Your task to perform on an android device: install app "Clock" Image 0: 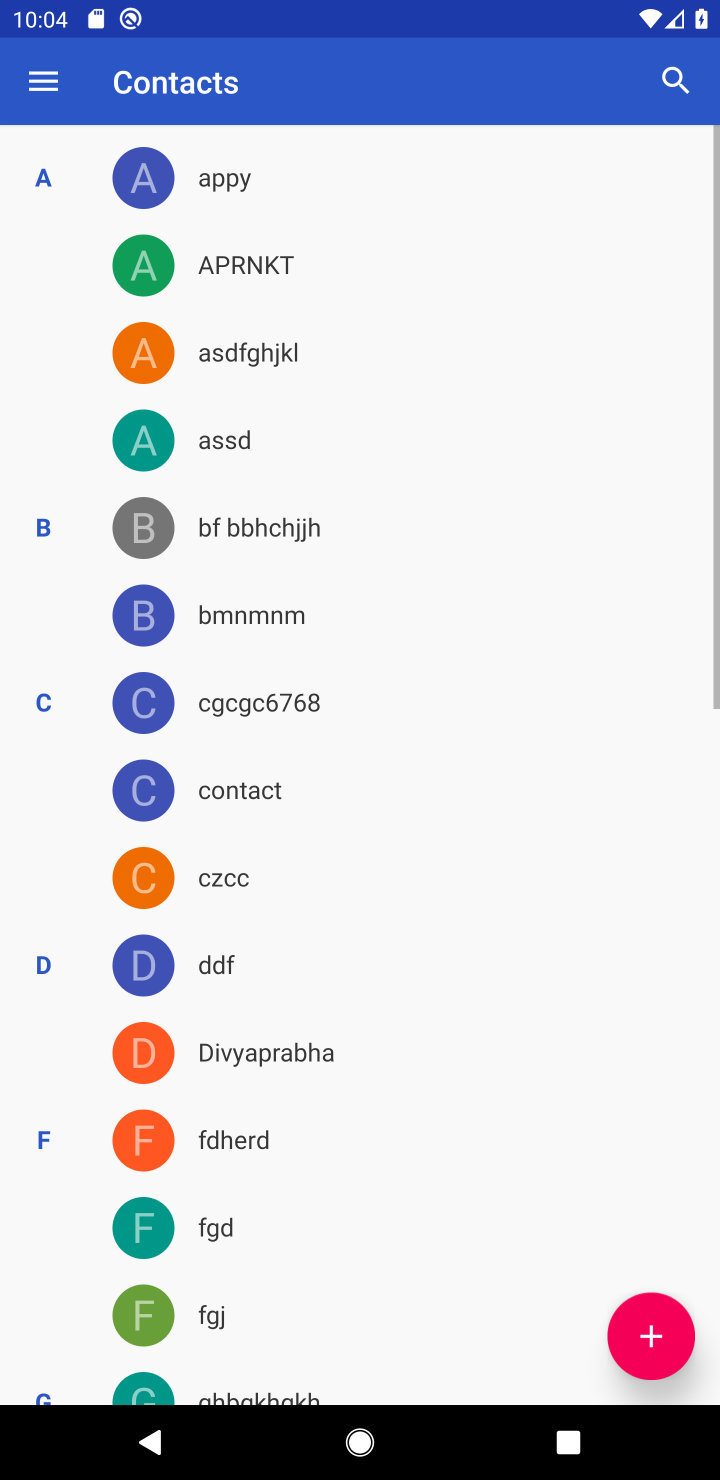
Step 0: press home button
Your task to perform on an android device: install app "Clock" Image 1: 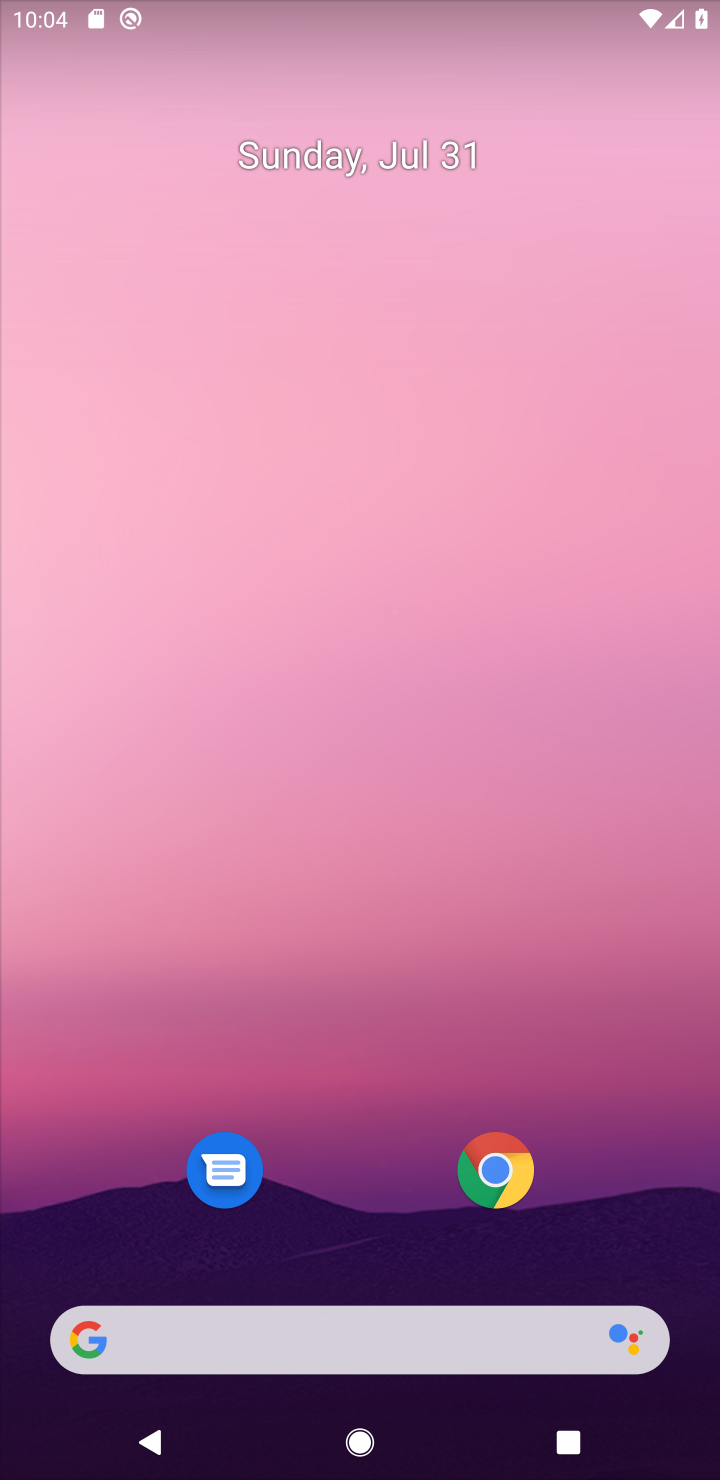
Step 1: drag from (640, 1193) to (389, 4)
Your task to perform on an android device: install app "Clock" Image 2: 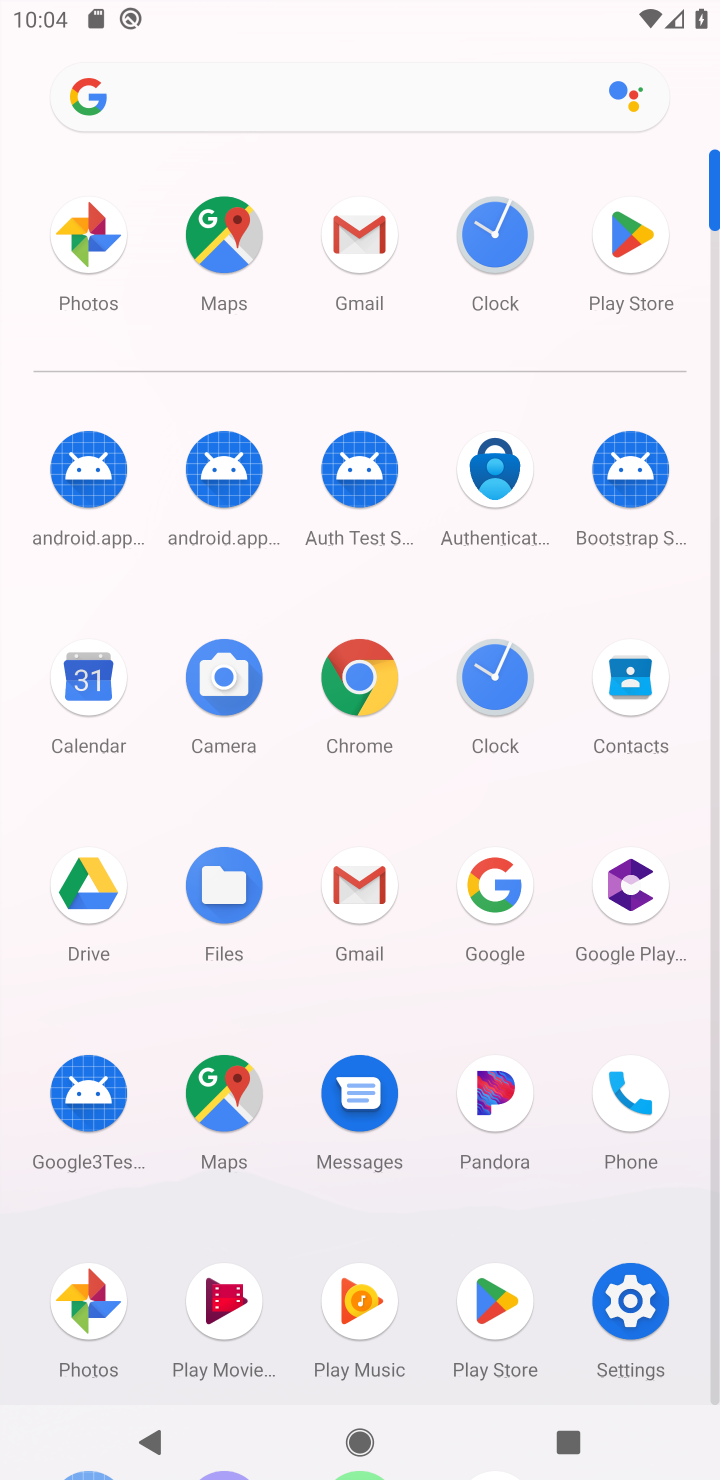
Step 2: click (624, 294)
Your task to perform on an android device: install app "Clock" Image 3: 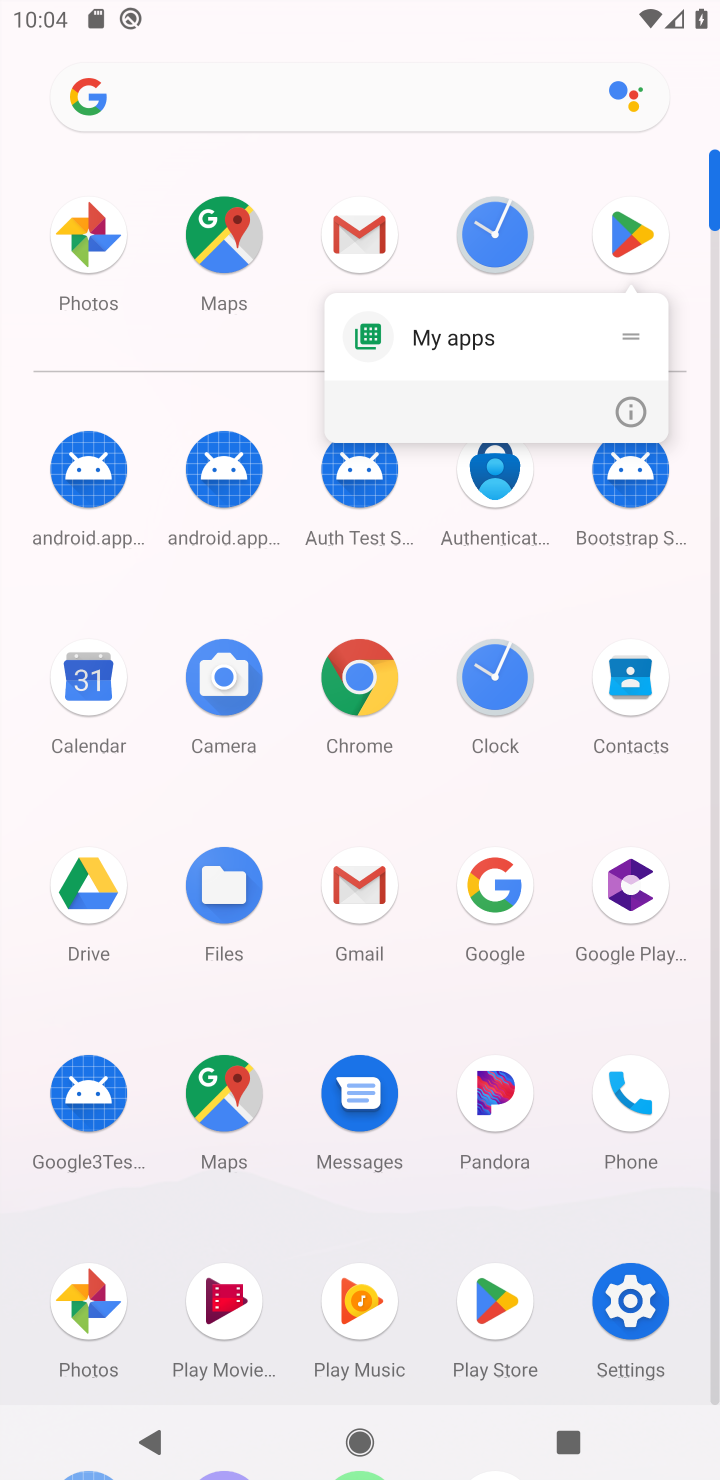
Step 3: click (613, 241)
Your task to perform on an android device: install app "Clock" Image 4: 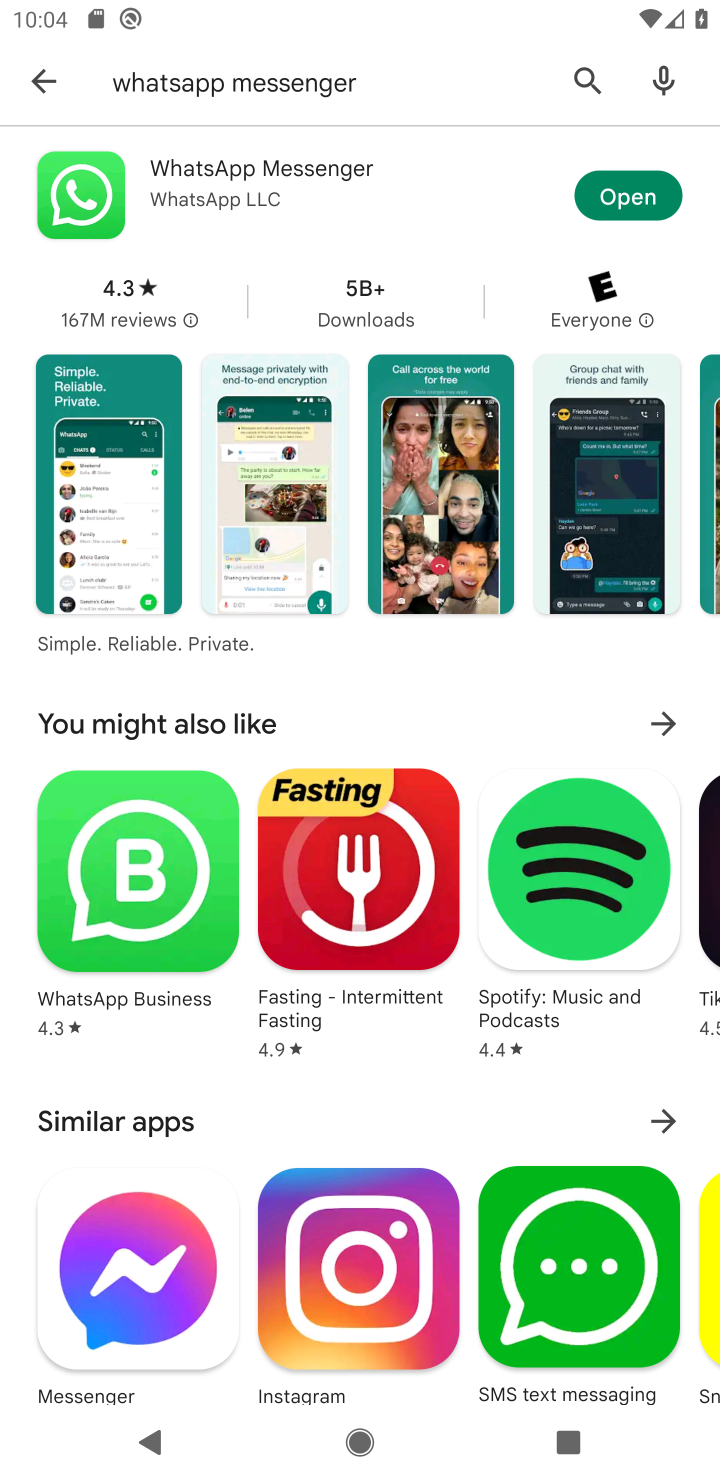
Step 4: press back button
Your task to perform on an android device: install app "Clock" Image 5: 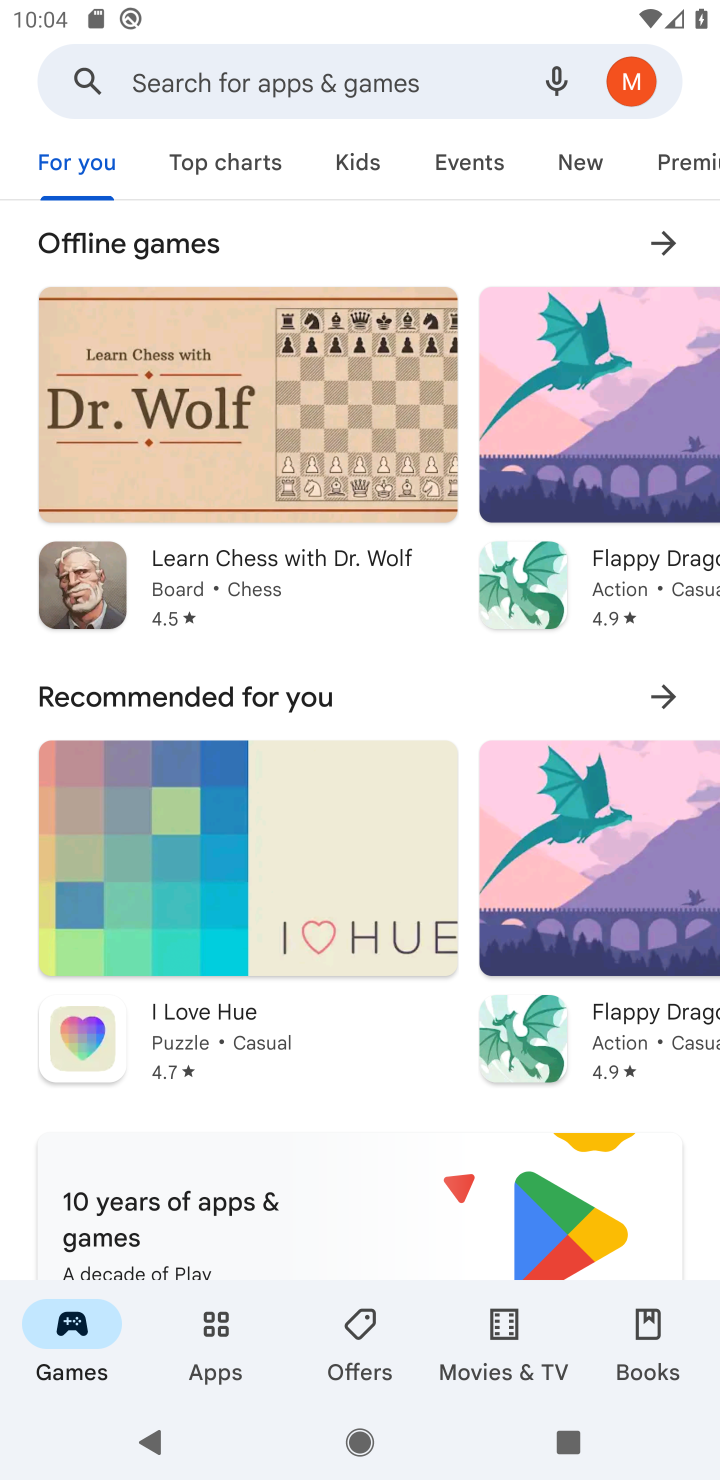
Step 5: click (223, 87)
Your task to perform on an android device: install app "Clock" Image 6: 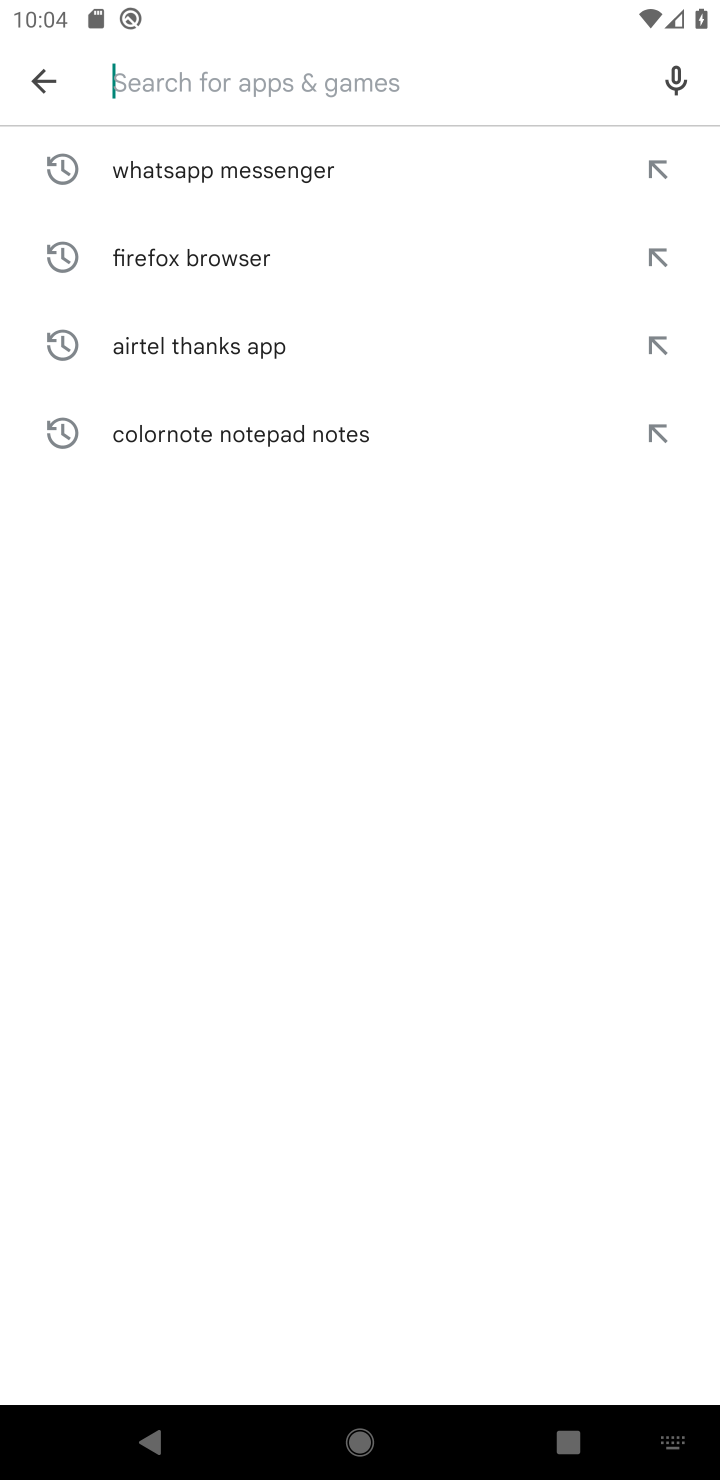
Step 6: type "clock"
Your task to perform on an android device: install app "Clock" Image 7: 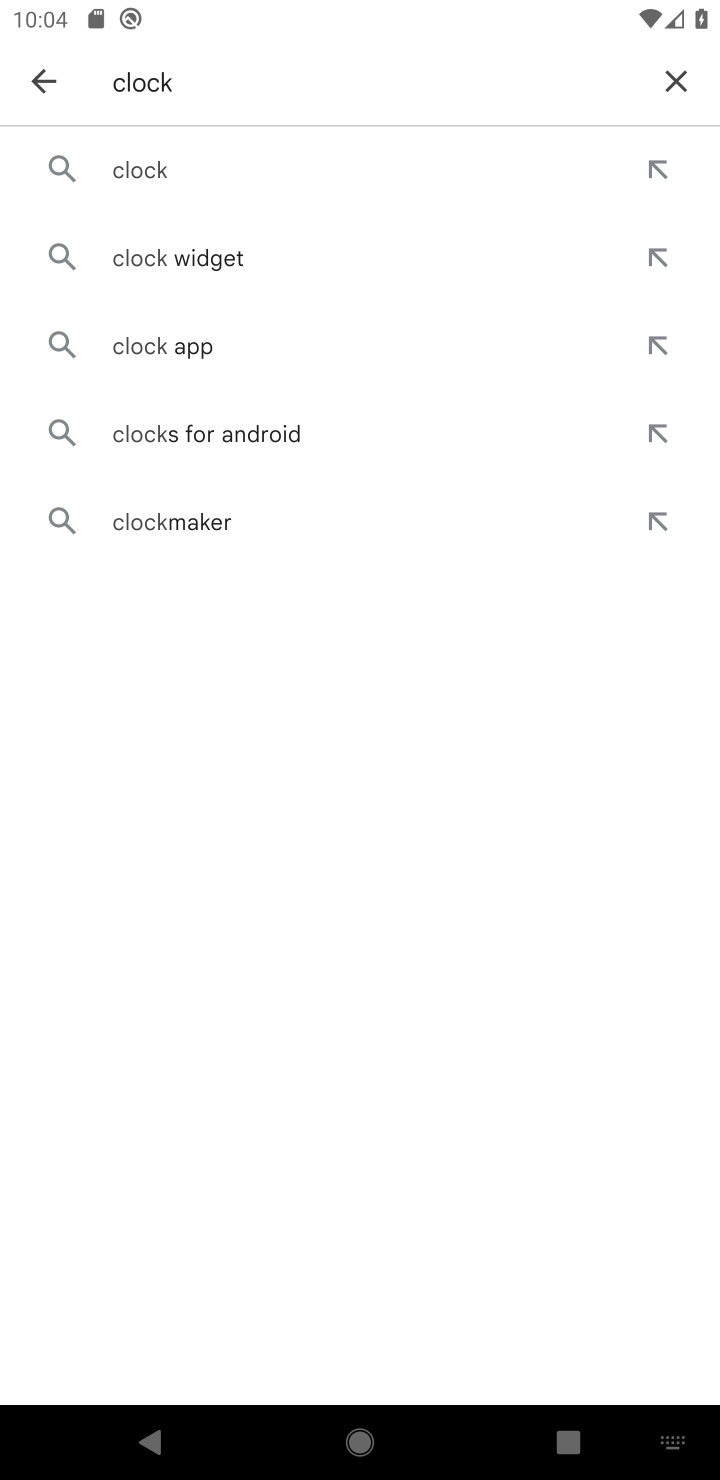
Step 7: click (233, 174)
Your task to perform on an android device: install app "Clock" Image 8: 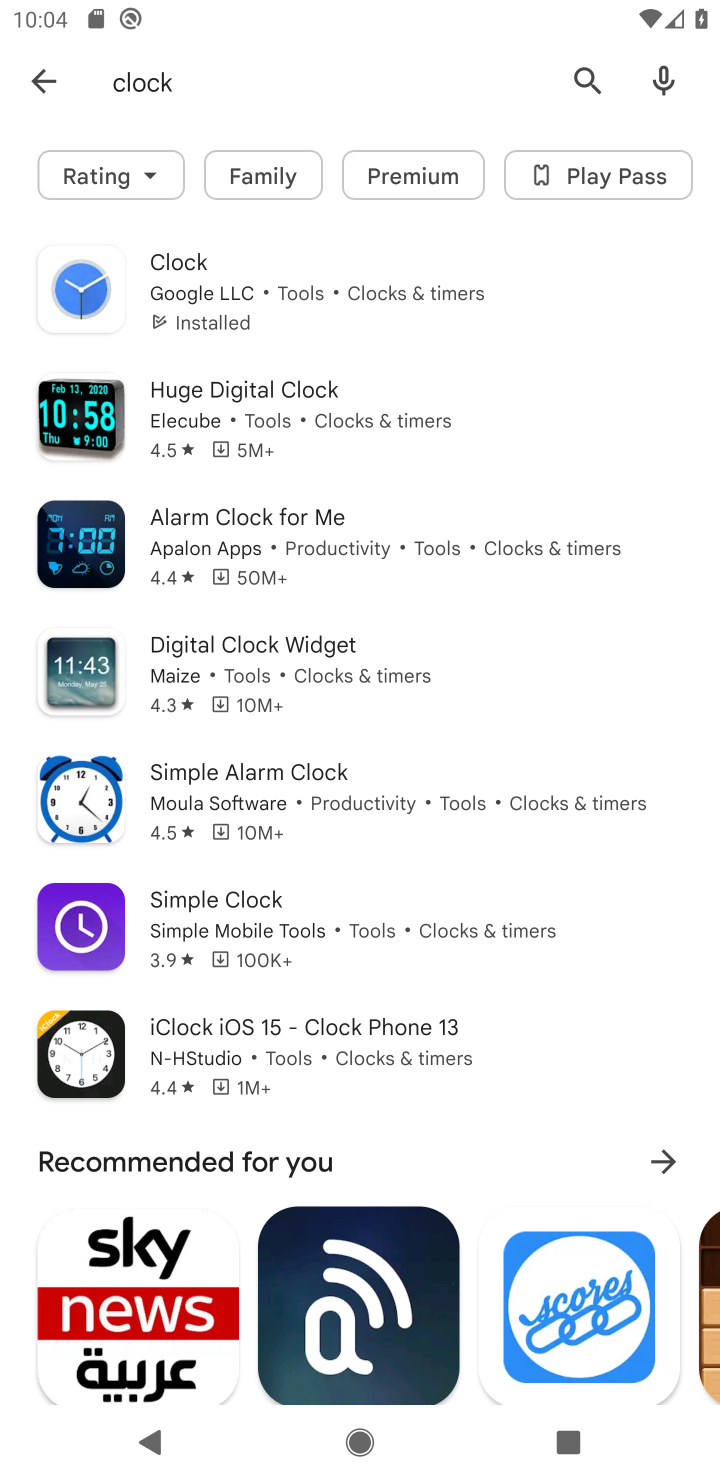
Step 8: click (325, 268)
Your task to perform on an android device: install app "Clock" Image 9: 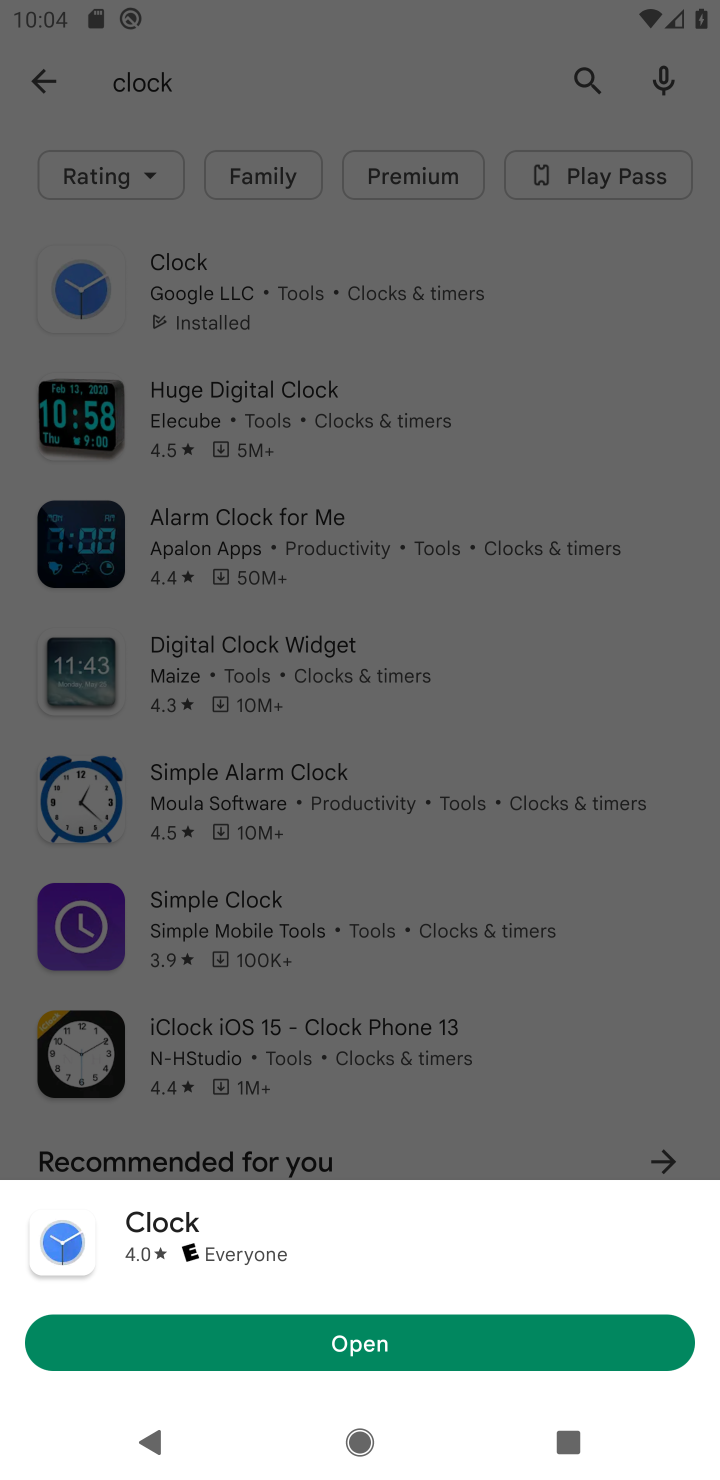
Step 9: task complete